Your task to perform on an android device: find which apps use the phone's location Image 0: 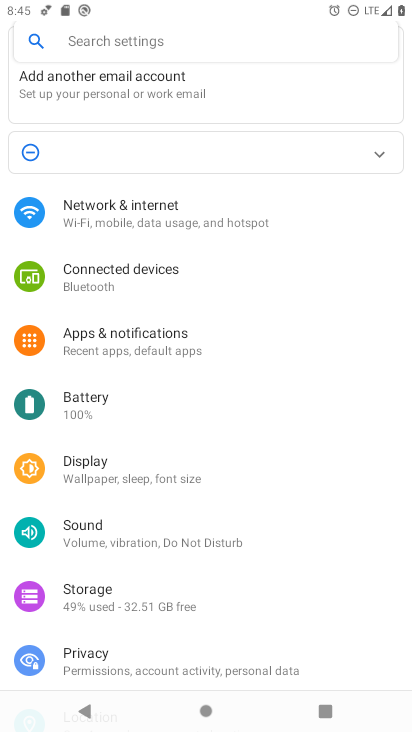
Step 0: press home button
Your task to perform on an android device: find which apps use the phone's location Image 1: 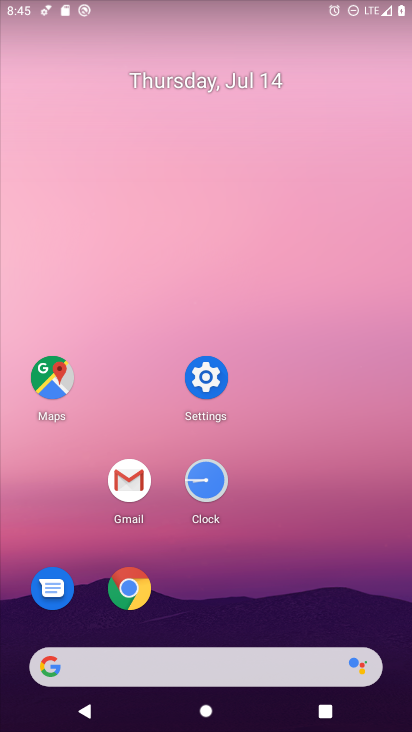
Step 1: click (197, 357)
Your task to perform on an android device: find which apps use the phone's location Image 2: 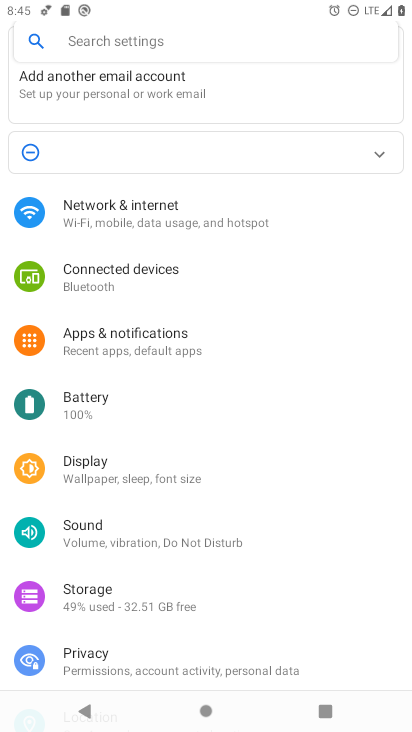
Step 2: drag from (169, 630) to (164, 379)
Your task to perform on an android device: find which apps use the phone's location Image 3: 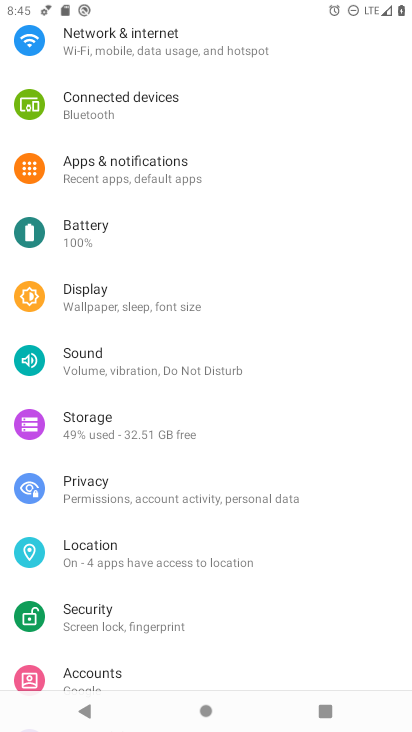
Step 3: click (91, 550)
Your task to perform on an android device: find which apps use the phone's location Image 4: 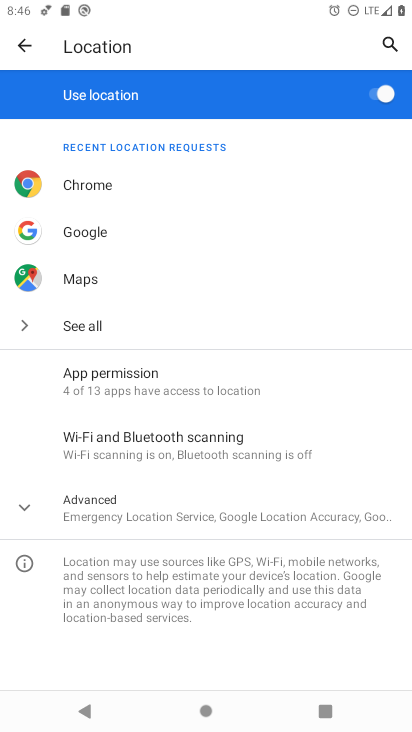
Step 4: click (64, 366)
Your task to perform on an android device: find which apps use the phone's location Image 5: 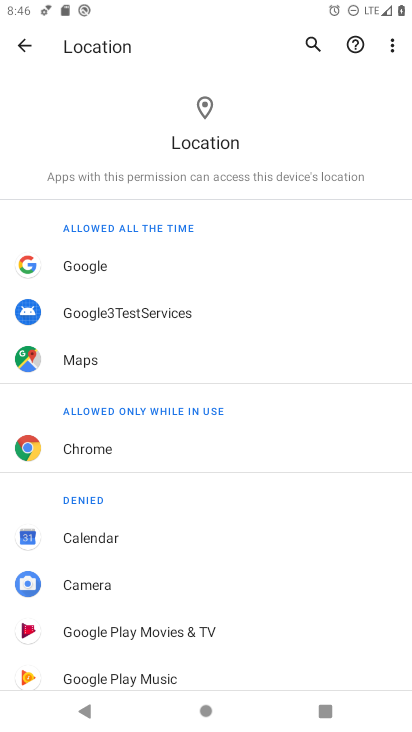
Step 5: task complete